Your task to perform on an android device: read, delete, or share a saved page in the chrome app Image 0: 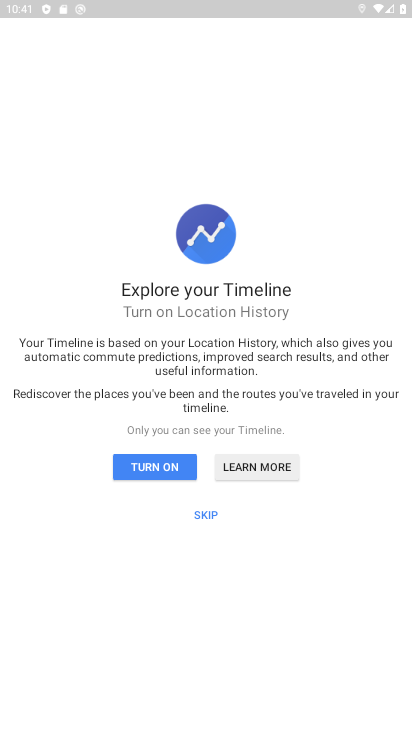
Step 0: press home button
Your task to perform on an android device: read, delete, or share a saved page in the chrome app Image 1: 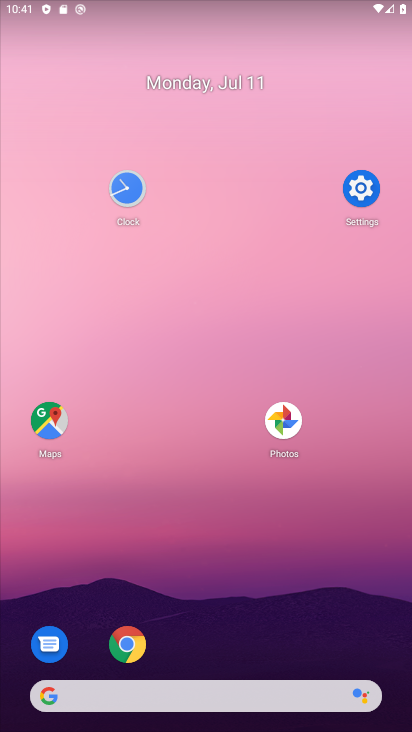
Step 1: click (121, 656)
Your task to perform on an android device: read, delete, or share a saved page in the chrome app Image 2: 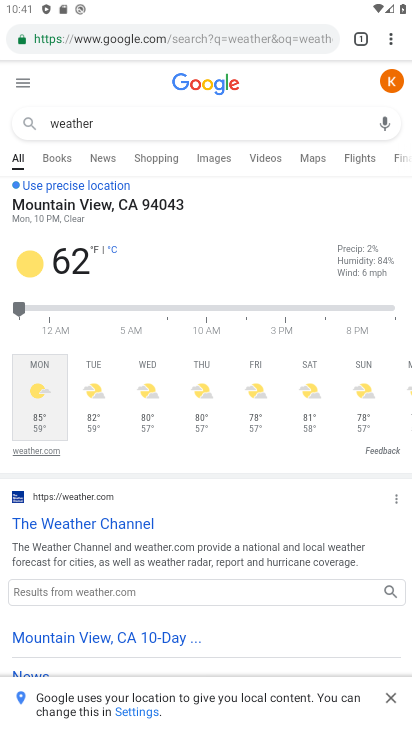
Step 2: click (386, 31)
Your task to perform on an android device: read, delete, or share a saved page in the chrome app Image 3: 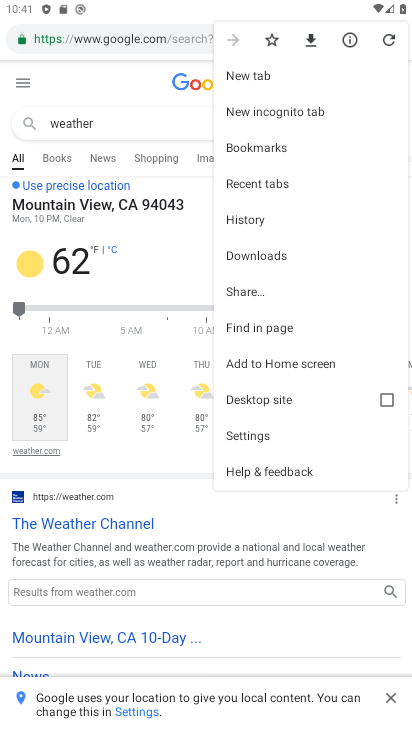
Step 3: click (268, 250)
Your task to perform on an android device: read, delete, or share a saved page in the chrome app Image 4: 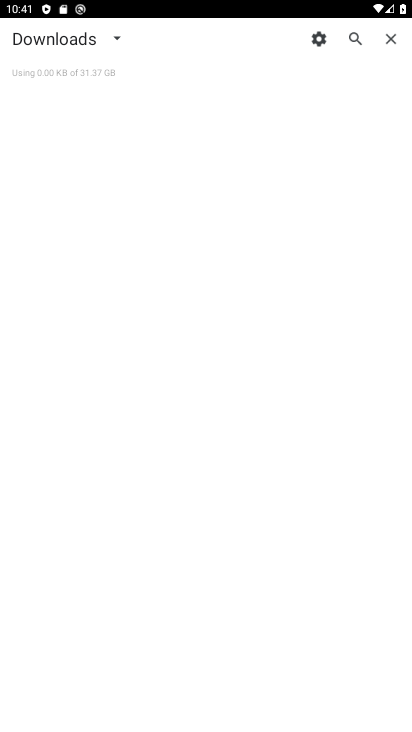
Step 4: task complete